Your task to perform on an android device: Is it going to rain tomorrow? Image 0: 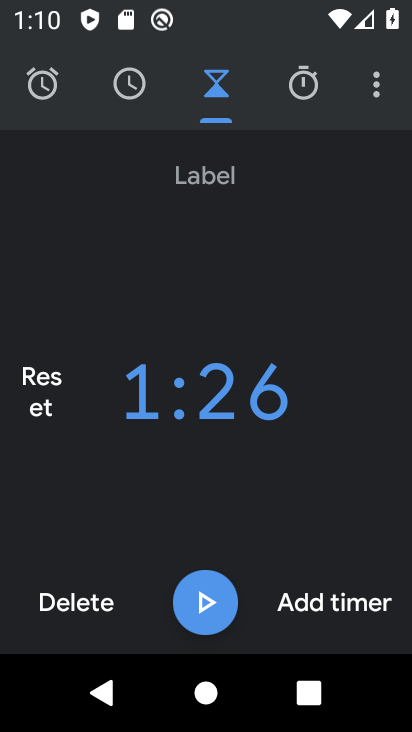
Step 0: press home button
Your task to perform on an android device: Is it going to rain tomorrow? Image 1: 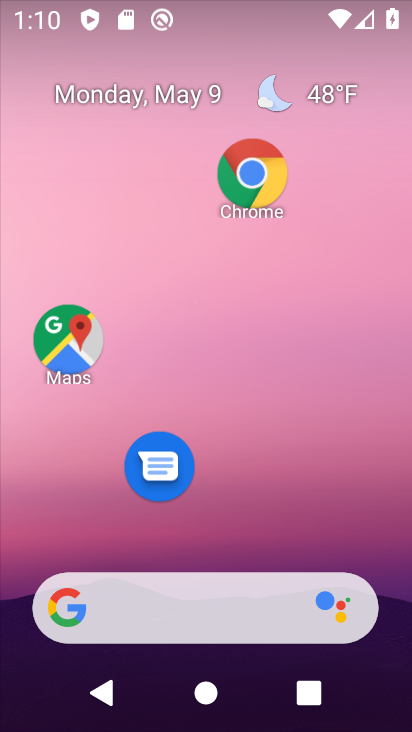
Step 1: drag from (152, 528) to (143, 193)
Your task to perform on an android device: Is it going to rain tomorrow? Image 2: 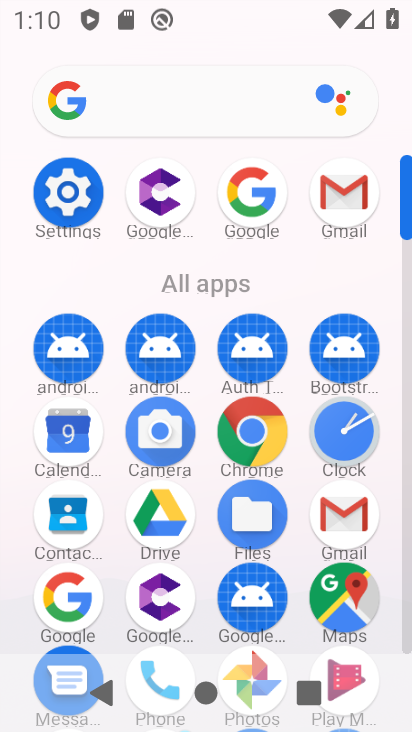
Step 2: click (44, 612)
Your task to perform on an android device: Is it going to rain tomorrow? Image 3: 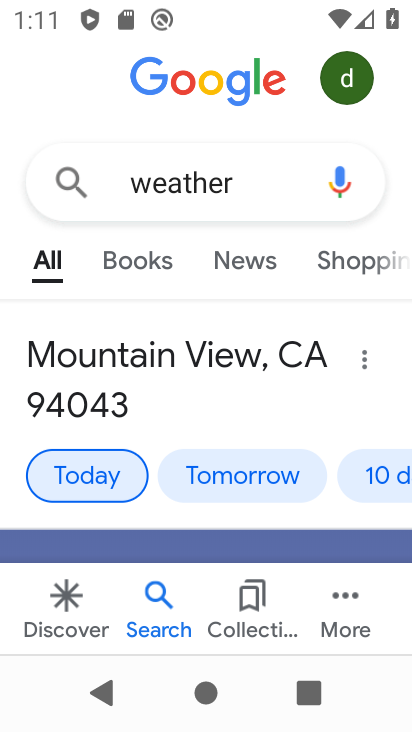
Step 3: task complete